Your task to perform on an android device: Open calendar and show me the third week of next month Image 0: 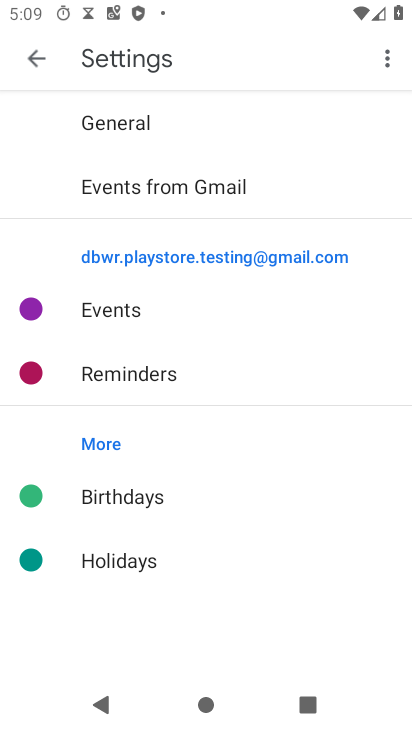
Step 0: press back button
Your task to perform on an android device: Open calendar and show me the third week of next month Image 1: 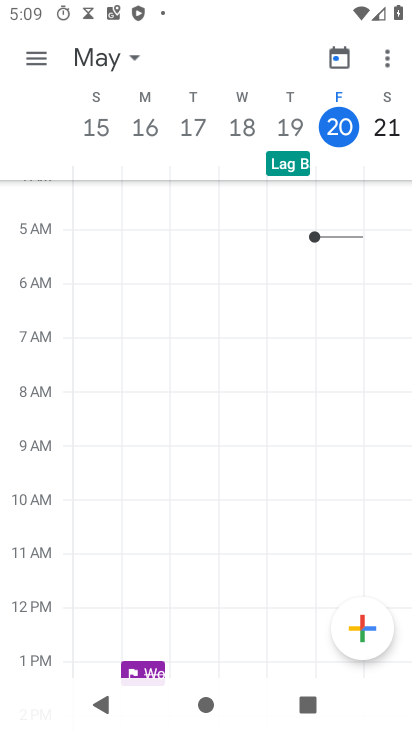
Step 1: click (345, 64)
Your task to perform on an android device: Open calendar and show me the third week of next month Image 2: 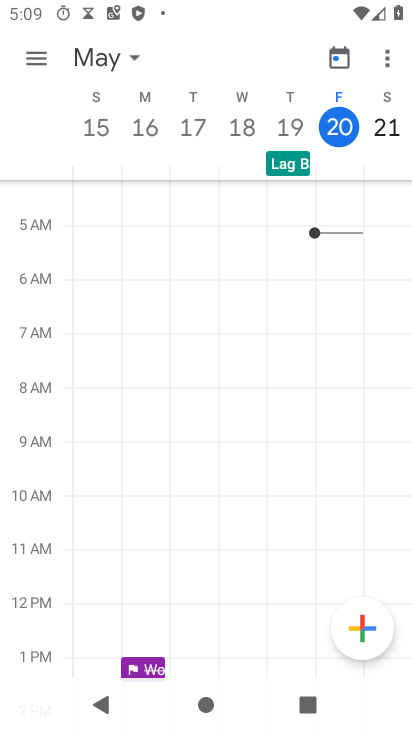
Step 2: click (119, 60)
Your task to perform on an android device: Open calendar and show me the third week of next month Image 3: 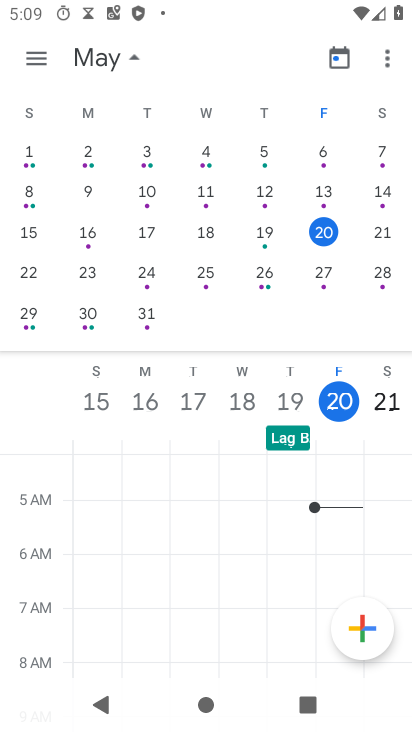
Step 3: drag from (375, 259) to (1, 247)
Your task to perform on an android device: Open calendar and show me the third week of next month Image 4: 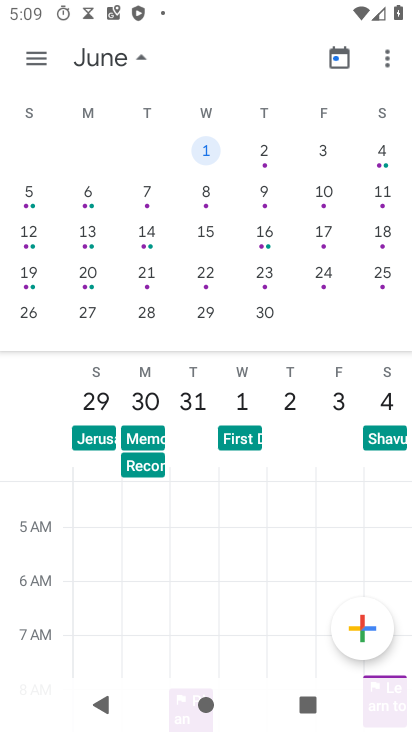
Step 4: click (89, 272)
Your task to perform on an android device: Open calendar and show me the third week of next month Image 5: 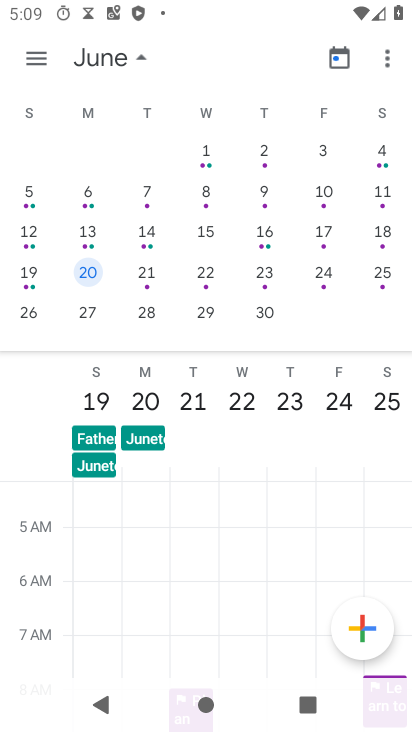
Step 5: click (36, 59)
Your task to perform on an android device: Open calendar and show me the third week of next month Image 6: 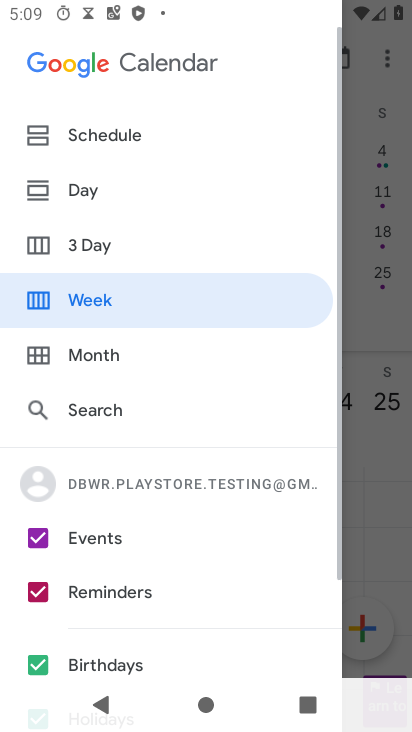
Step 6: click (114, 285)
Your task to perform on an android device: Open calendar and show me the third week of next month Image 7: 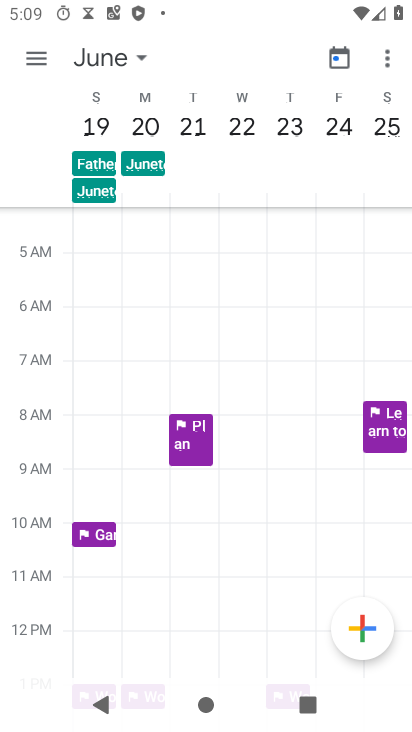
Step 7: task complete